Your task to perform on an android device: clear history in the chrome app Image 0: 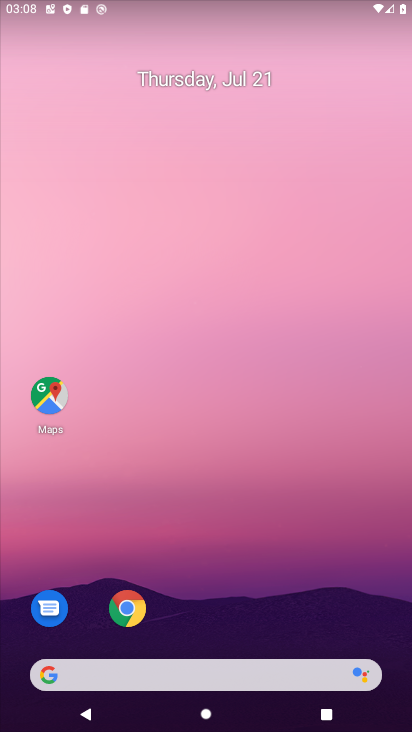
Step 0: drag from (298, 667) to (264, 19)
Your task to perform on an android device: clear history in the chrome app Image 1: 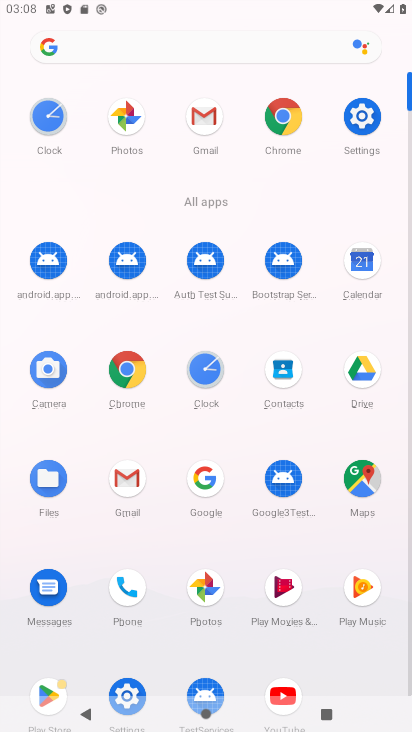
Step 1: click (134, 370)
Your task to perform on an android device: clear history in the chrome app Image 2: 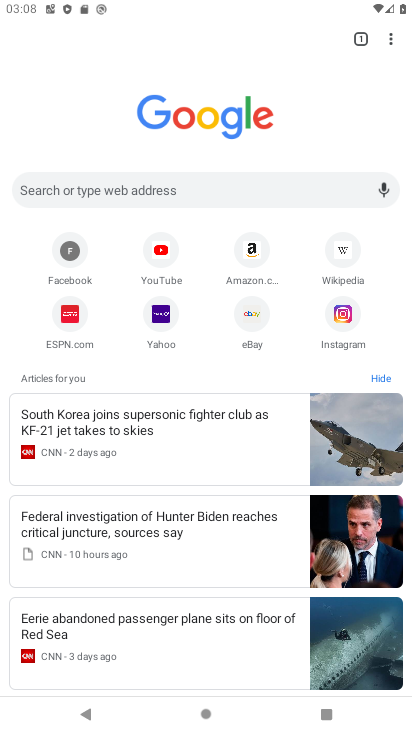
Step 2: drag from (374, 33) to (370, 286)
Your task to perform on an android device: clear history in the chrome app Image 3: 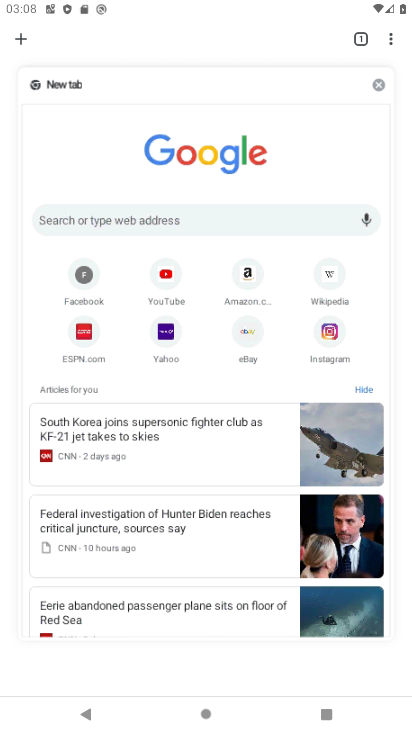
Step 3: click (282, 137)
Your task to perform on an android device: clear history in the chrome app Image 4: 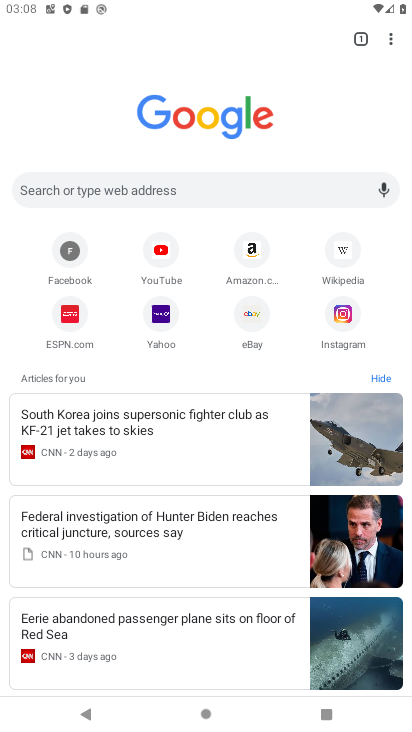
Step 4: task complete